Your task to perform on an android device: Open the Play Movies app and select the watchlist tab. Image 0: 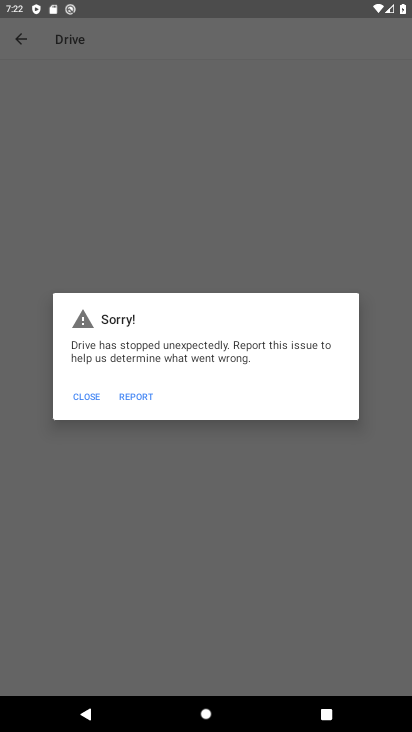
Step 0: press home button
Your task to perform on an android device: Open the Play Movies app and select the watchlist tab. Image 1: 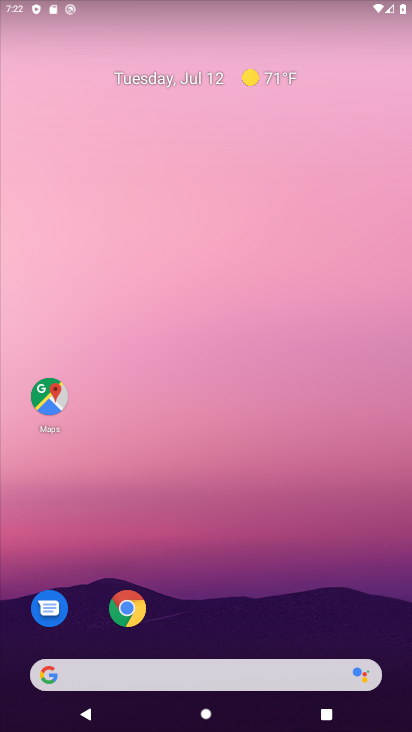
Step 1: drag from (279, 622) to (187, 136)
Your task to perform on an android device: Open the Play Movies app and select the watchlist tab. Image 2: 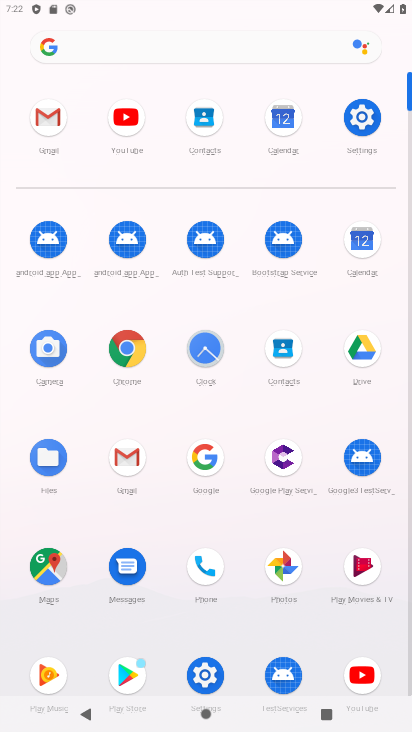
Step 2: click (363, 560)
Your task to perform on an android device: Open the Play Movies app and select the watchlist tab. Image 3: 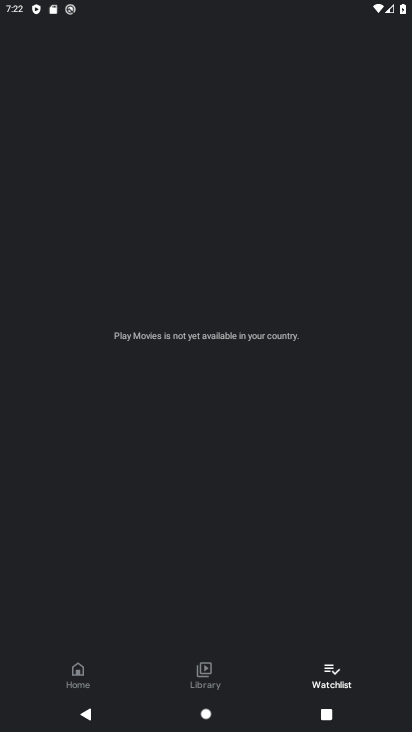
Step 3: task complete